Your task to perform on an android device: check out phone information Image 0: 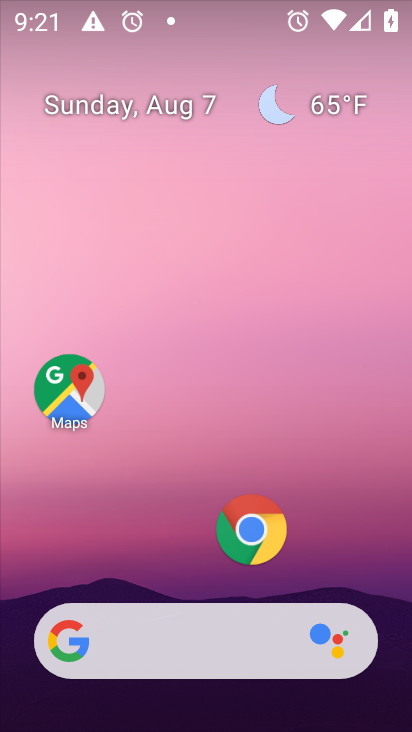
Step 0: drag from (143, 488) to (138, 218)
Your task to perform on an android device: check out phone information Image 1: 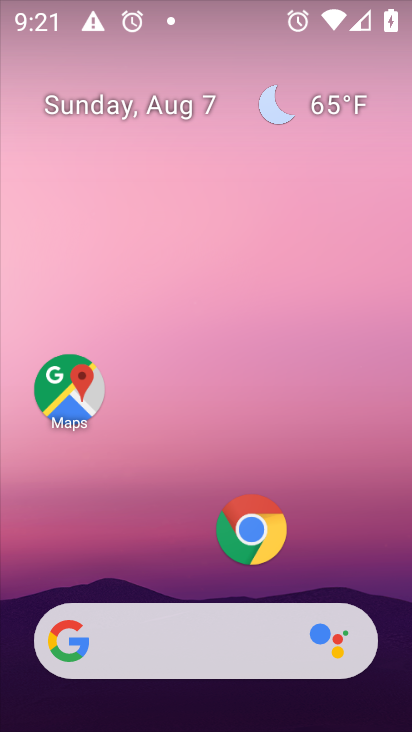
Step 1: drag from (173, 427) to (179, 124)
Your task to perform on an android device: check out phone information Image 2: 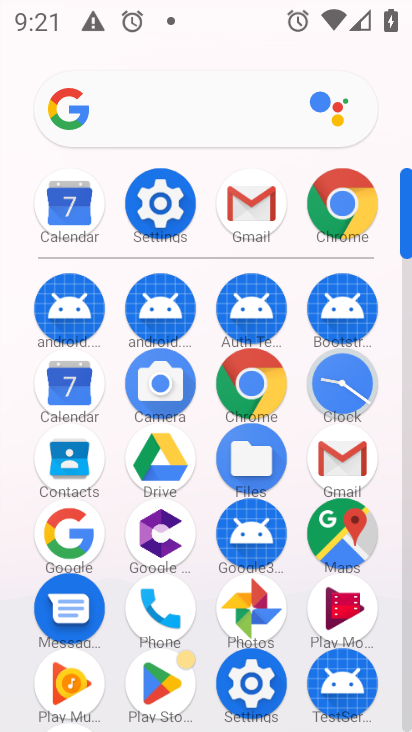
Step 2: click (163, 200)
Your task to perform on an android device: check out phone information Image 3: 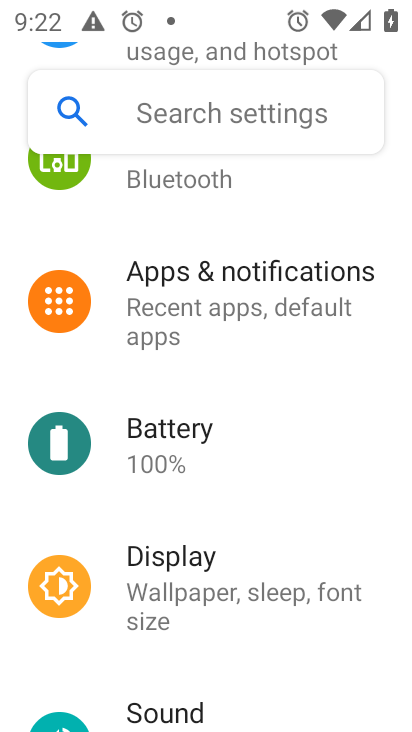
Step 3: drag from (225, 514) to (254, 198)
Your task to perform on an android device: check out phone information Image 4: 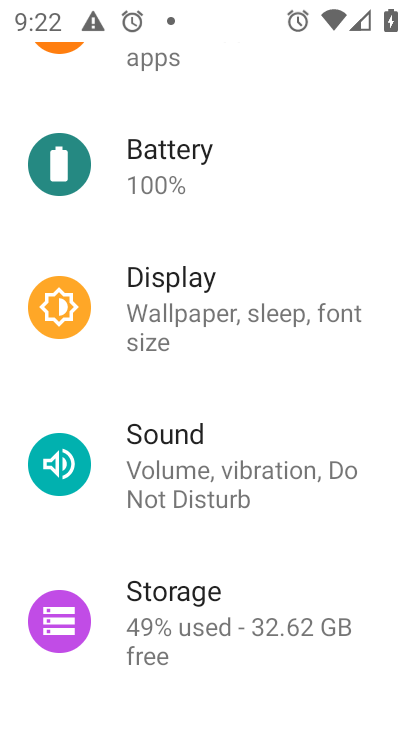
Step 4: drag from (164, 519) to (185, 369)
Your task to perform on an android device: check out phone information Image 5: 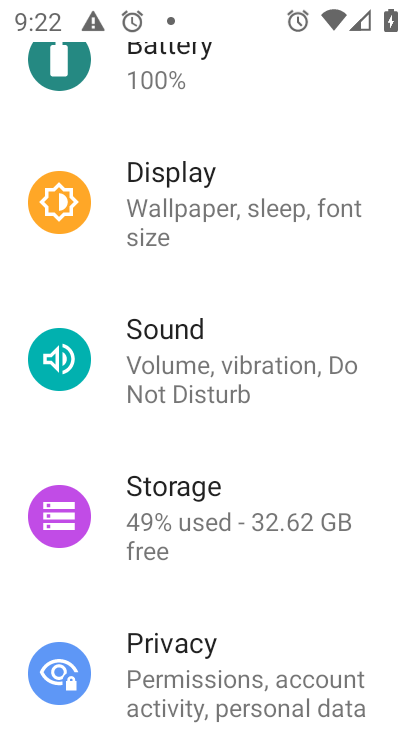
Step 5: drag from (177, 546) to (208, 214)
Your task to perform on an android device: check out phone information Image 6: 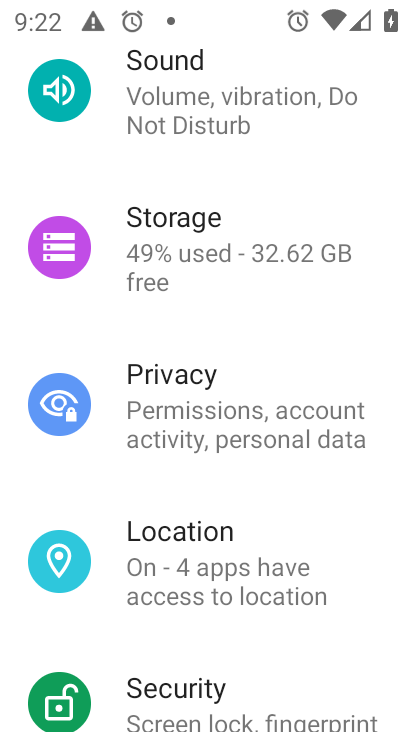
Step 6: drag from (171, 630) to (206, 145)
Your task to perform on an android device: check out phone information Image 7: 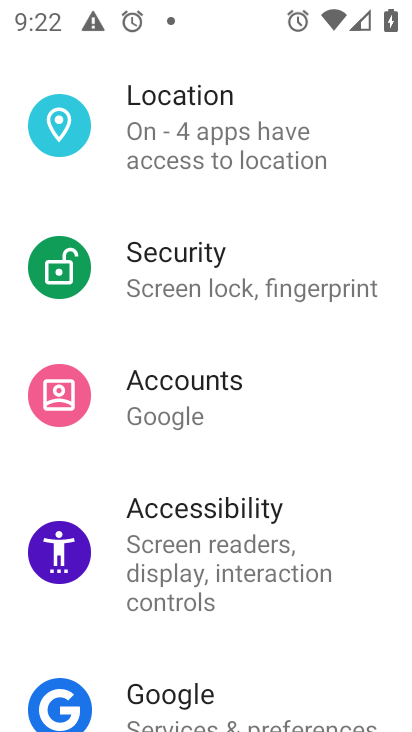
Step 7: drag from (192, 396) to (215, 260)
Your task to perform on an android device: check out phone information Image 8: 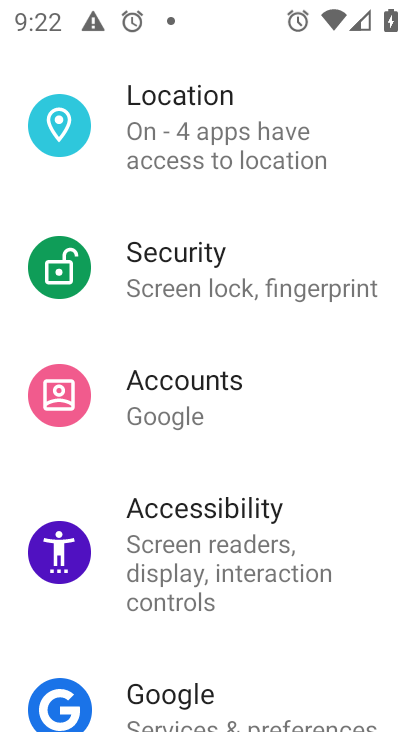
Step 8: drag from (176, 619) to (190, 217)
Your task to perform on an android device: check out phone information Image 9: 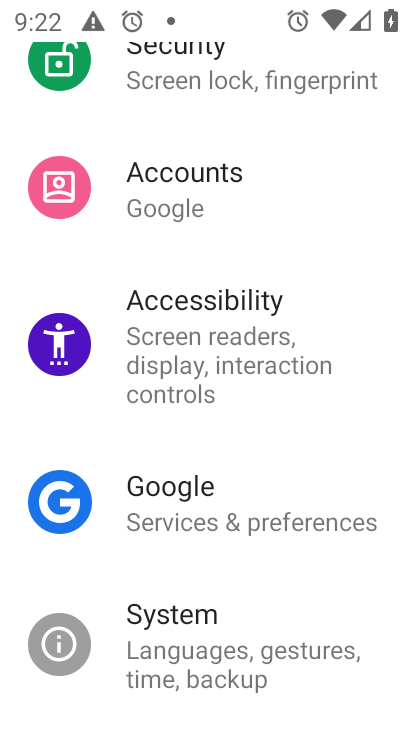
Step 9: drag from (203, 645) to (245, 329)
Your task to perform on an android device: check out phone information Image 10: 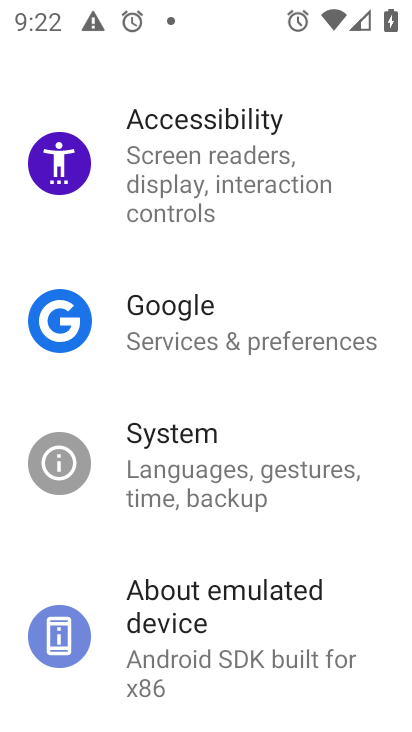
Step 10: click (165, 616)
Your task to perform on an android device: check out phone information Image 11: 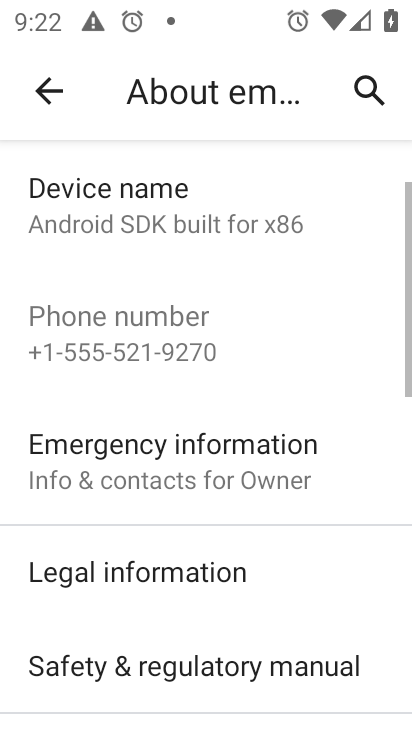
Step 11: drag from (148, 543) to (158, 386)
Your task to perform on an android device: check out phone information Image 12: 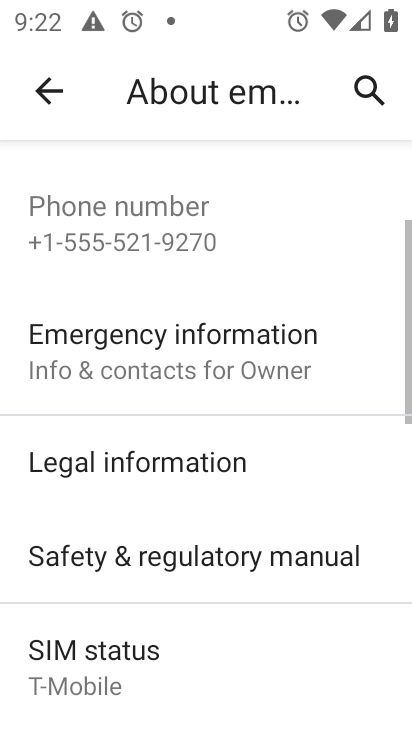
Step 12: click (195, 319)
Your task to perform on an android device: check out phone information Image 13: 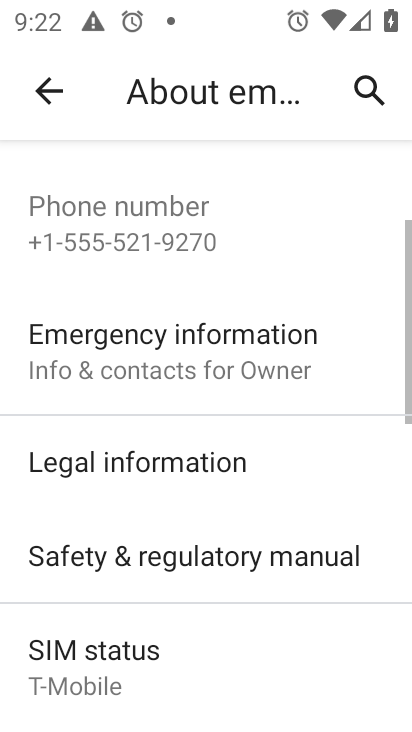
Step 13: task complete